Your task to perform on an android device: toggle notification dots Image 0: 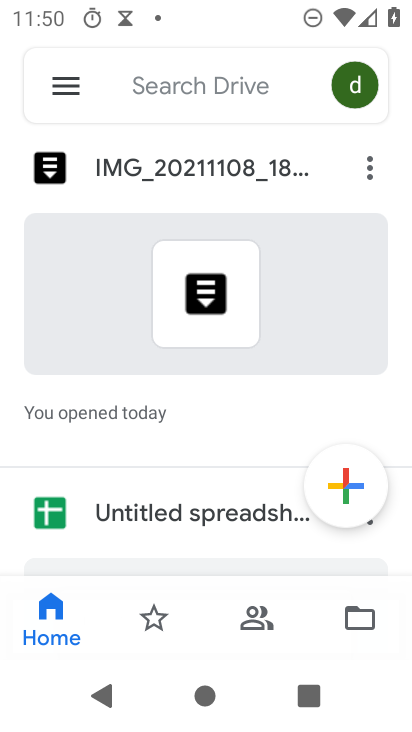
Step 0: press home button
Your task to perform on an android device: toggle notification dots Image 1: 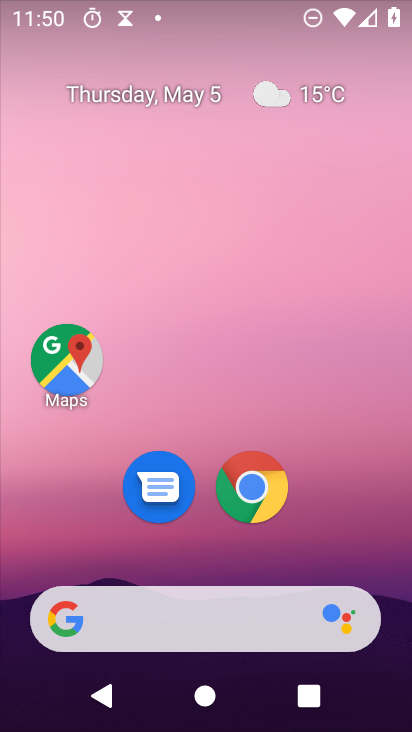
Step 1: drag from (365, 542) to (338, 130)
Your task to perform on an android device: toggle notification dots Image 2: 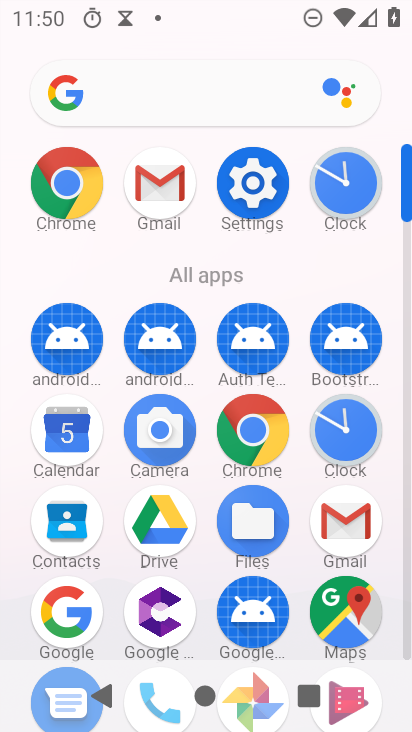
Step 2: click (243, 186)
Your task to perform on an android device: toggle notification dots Image 3: 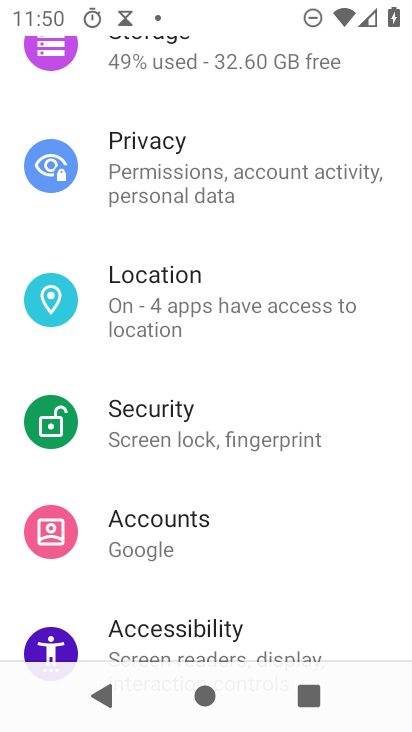
Step 3: drag from (200, 538) to (200, 159)
Your task to perform on an android device: toggle notification dots Image 4: 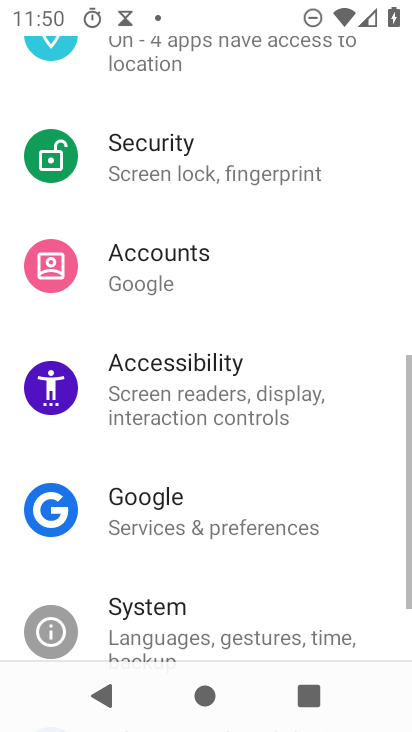
Step 4: drag from (224, 504) to (216, 120)
Your task to perform on an android device: toggle notification dots Image 5: 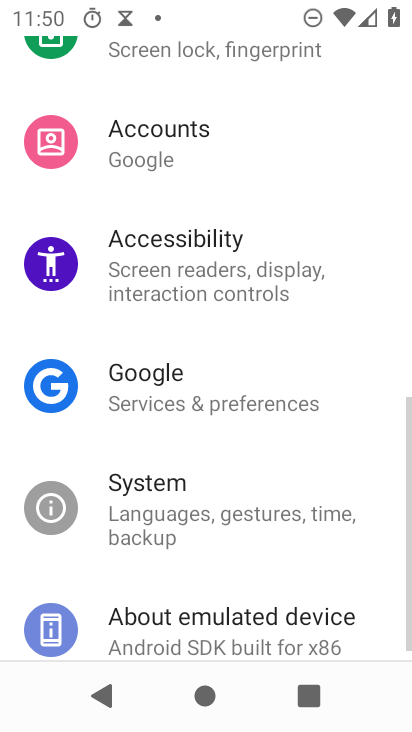
Step 5: drag from (204, 577) to (183, 251)
Your task to perform on an android device: toggle notification dots Image 6: 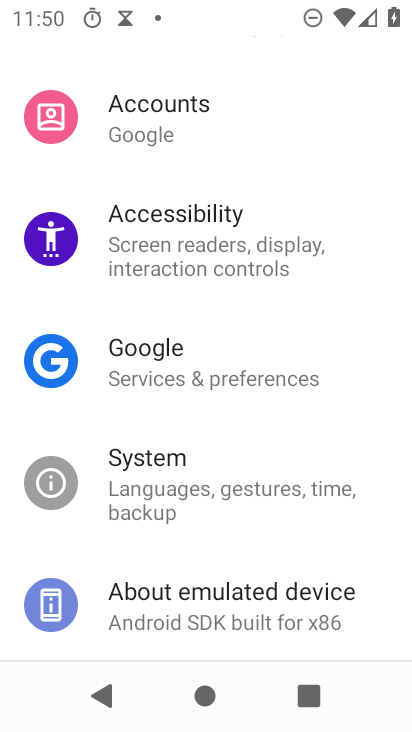
Step 6: drag from (169, 540) to (220, 126)
Your task to perform on an android device: toggle notification dots Image 7: 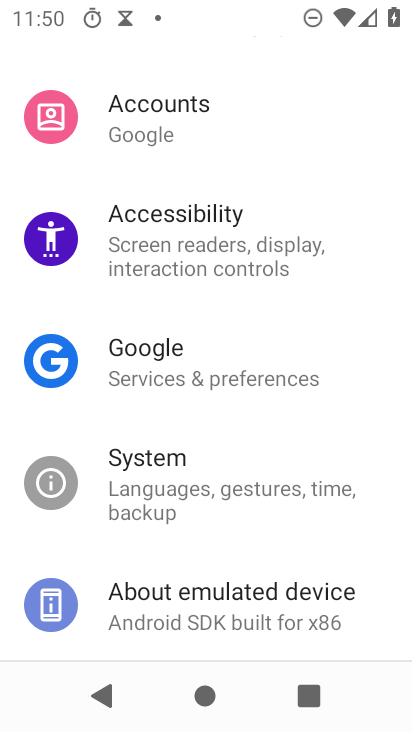
Step 7: drag from (214, 261) to (226, 558)
Your task to perform on an android device: toggle notification dots Image 8: 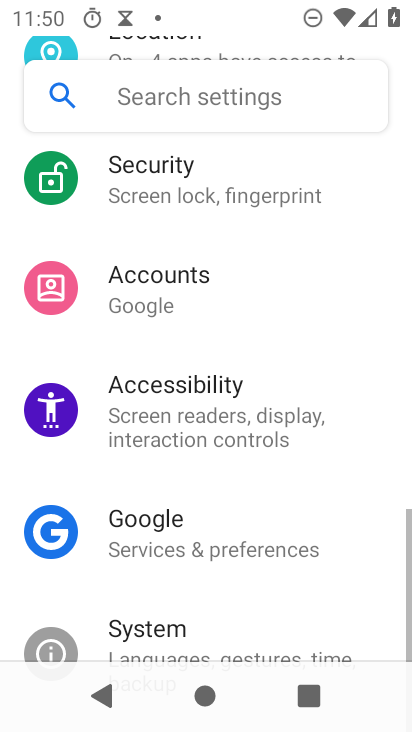
Step 8: click (187, 478)
Your task to perform on an android device: toggle notification dots Image 9: 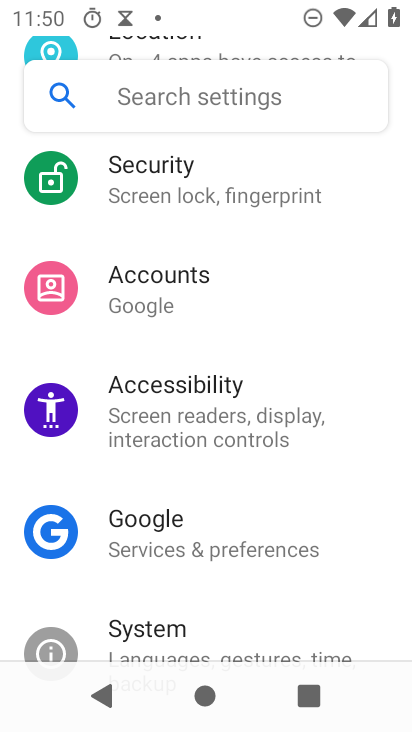
Step 9: drag from (173, 308) to (212, 585)
Your task to perform on an android device: toggle notification dots Image 10: 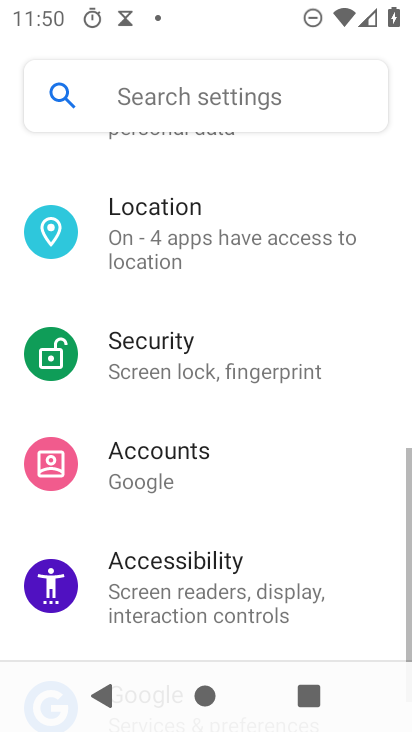
Step 10: drag from (118, 306) to (174, 543)
Your task to perform on an android device: toggle notification dots Image 11: 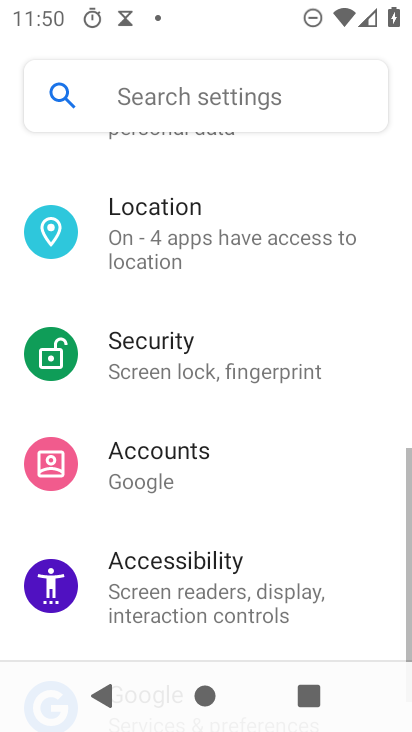
Step 11: drag from (170, 281) to (309, 625)
Your task to perform on an android device: toggle notification dots Image 12: 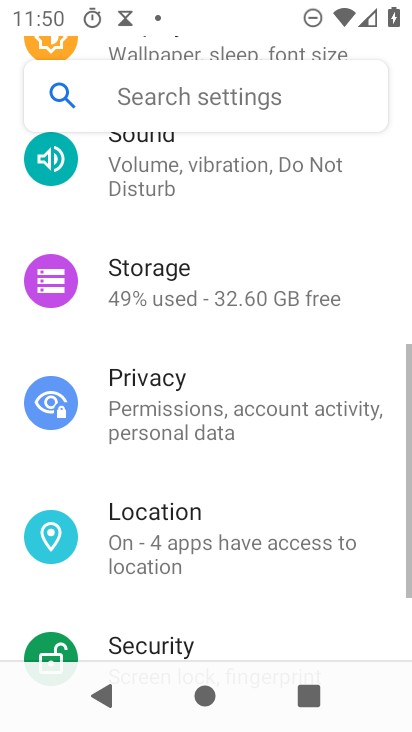
Step 12: drag from (241, 330) to (239, 628)
Your task to perform on an android device: toggle notification dots Image 13: 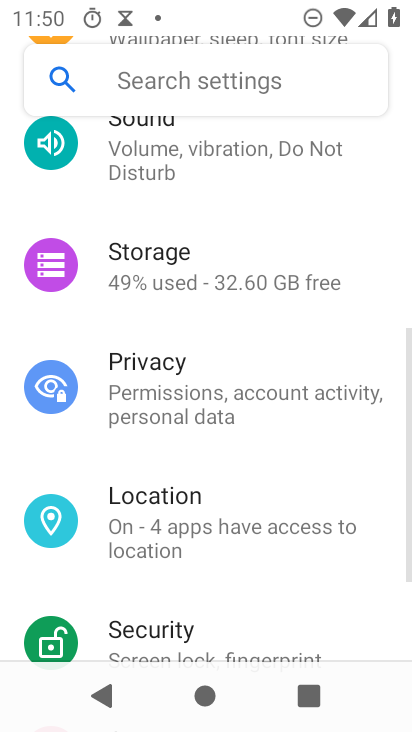
Step 13: drag from (82, 256) to (98, 639)
Your task to perform on an android device: toggle notification dots Image 14: 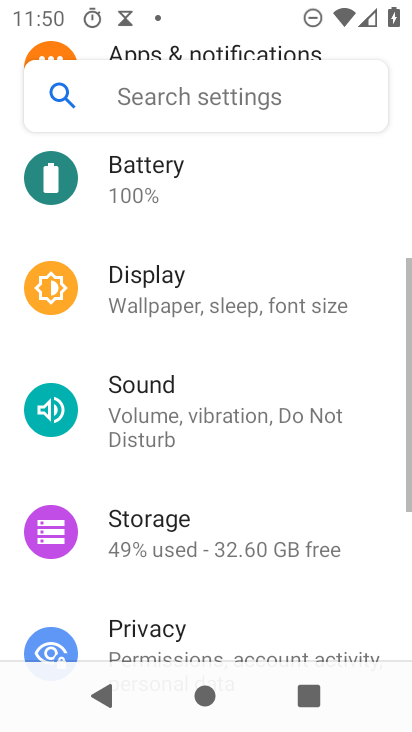
Step 14: drag from (27, 244) to (65, 695)
Your task to perform on an android device: toggle notification dots Image 15: 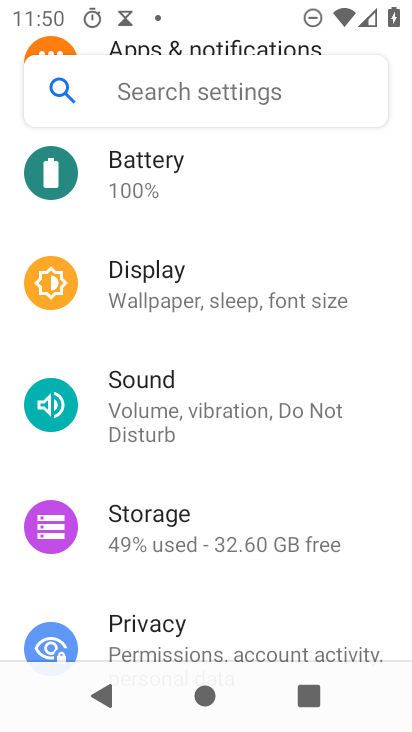
Step 15: drag from (101, 344) to (157, 671)
Your task to perform on an android device: toggle notification dots Image 16: 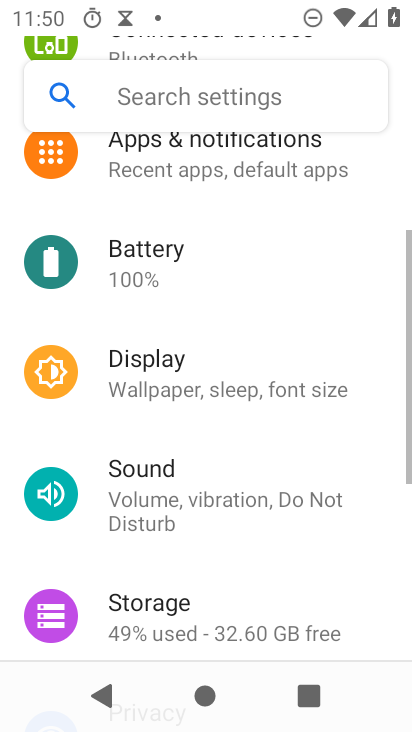
Step 16: drag from (231, 468) to (267, 730)
Your task to perform on an android device: toggle notification dots Image 17: 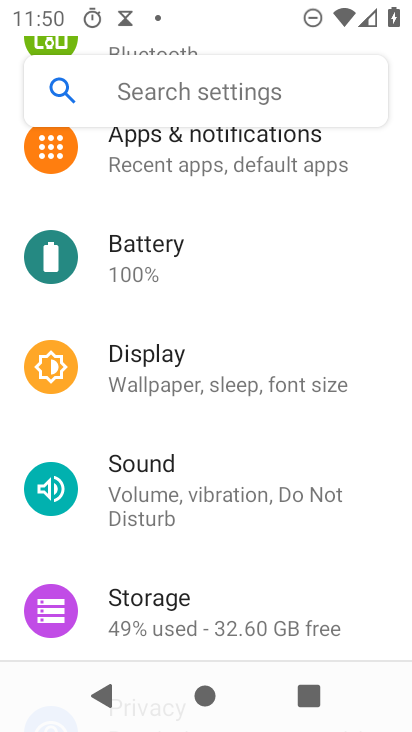
Step 17: click (242, 156)
Your task to perform on an android device: toggle notification dots Image 18: 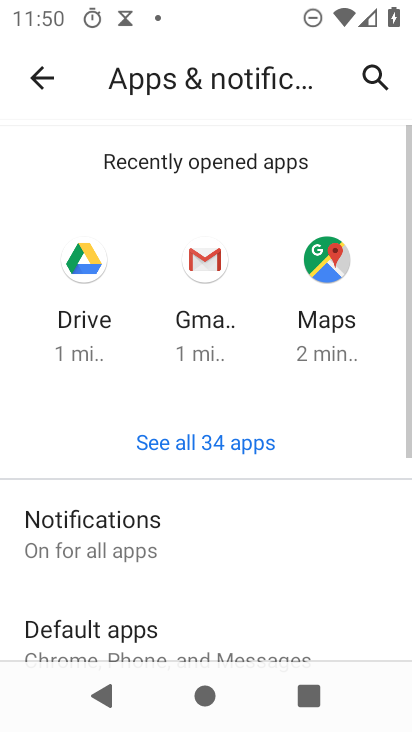
Step 18: drag from (215, 591) to (157, 123)
Your task to perform on an android device: toggle notification dots Image 19: 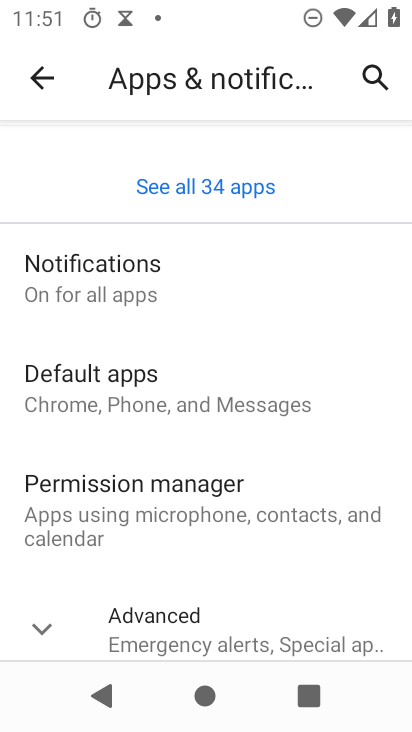
Step 19: click (74, 283)
Your task to perform on an android device: toggle notification dots Image 20: 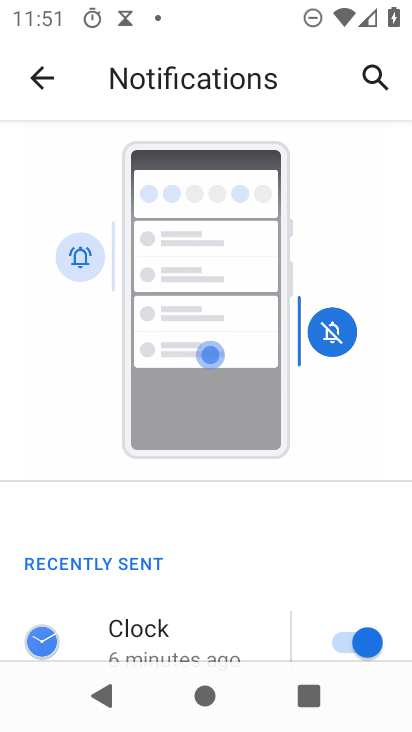
Step 20: drag from (129, 622) to (79, 243)
Your task to perform on an android device: toggle notification dots Image 21: 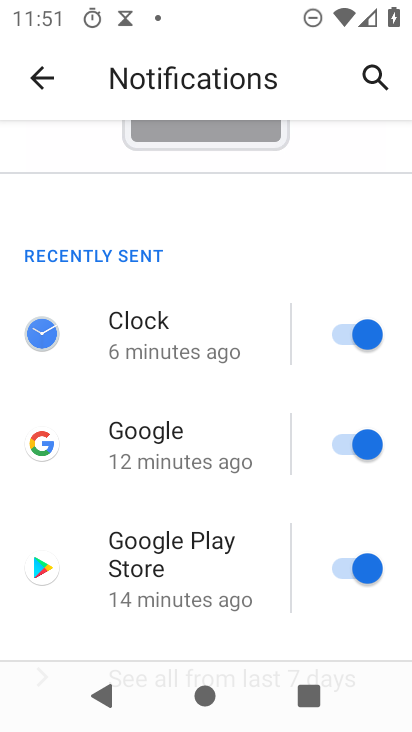
Step 21: drag from (180, 603) to (90, 187)
Your task to perform on an android device: toggle notification dots Image 22: 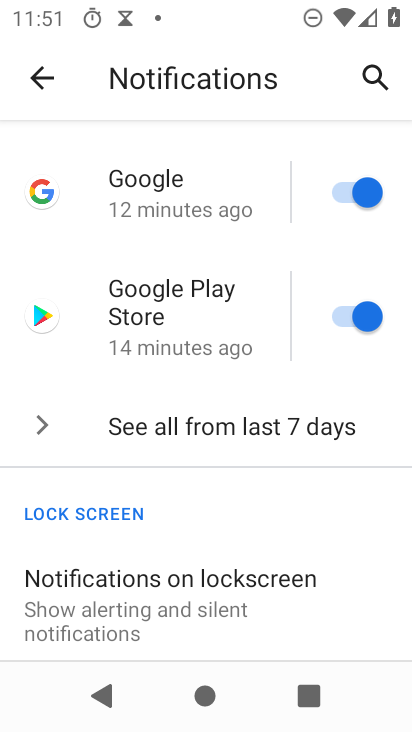
Step 22: drag from (176, 603) to (90, 139)
Your task to perform on an android device: toggle notification dots Image 23: 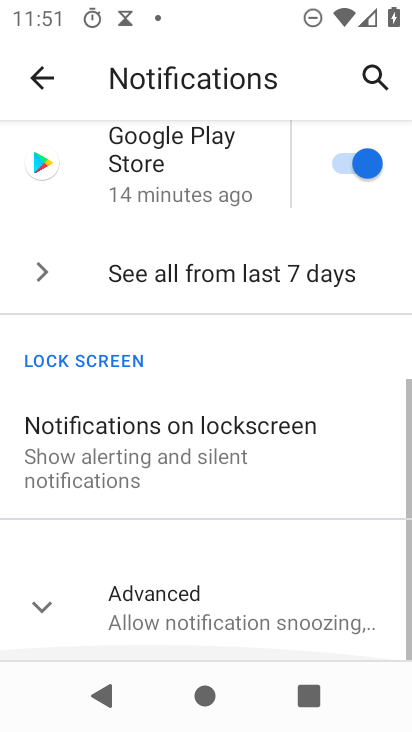
Step 23: drag from (165, 527) to (12, 143)
Your task to perform on an android device: toggle notification dots Image 24: 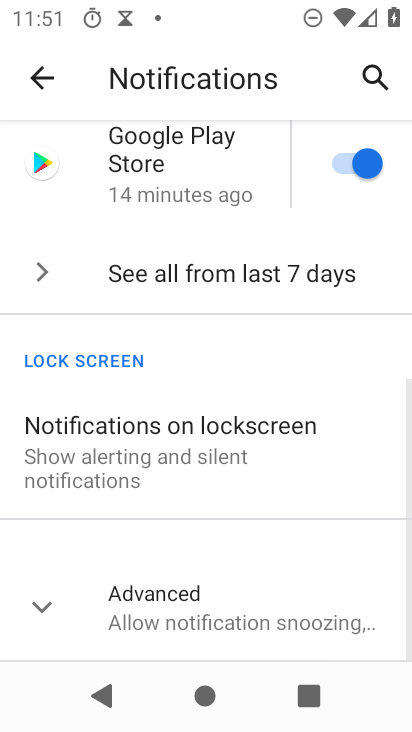
Step 24: click (204, 629)
Your task to perform on an android device: toggle notification dots Image 25: 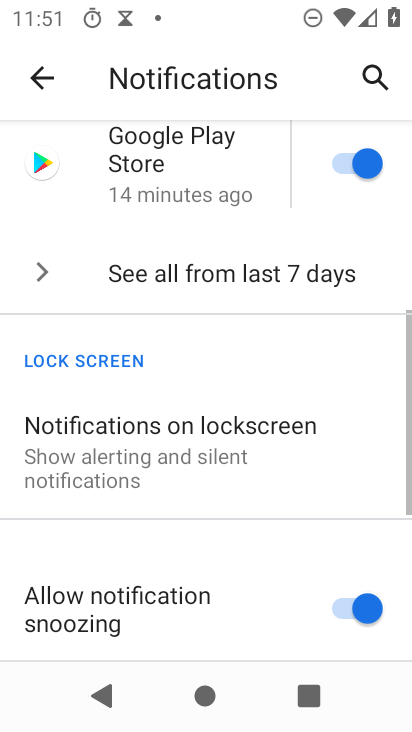
Step 25: drag from (199, 573) to (128, 201)
Your task to perform on an android device: toggle notification dots Image 26: 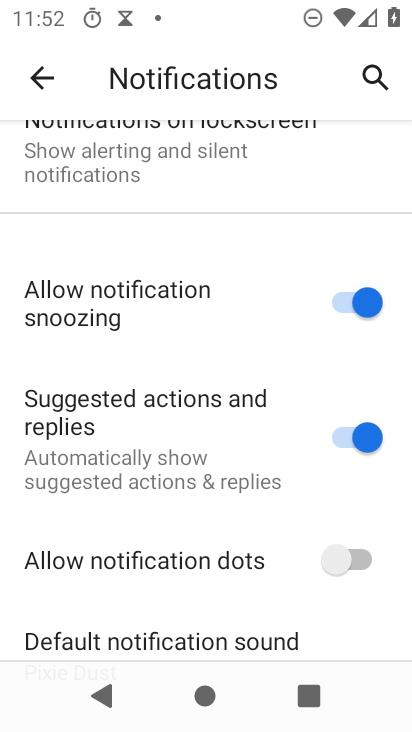
Step 26: click (334, 555)
Your task to perform on an android device: toggle notification dots Image 27: 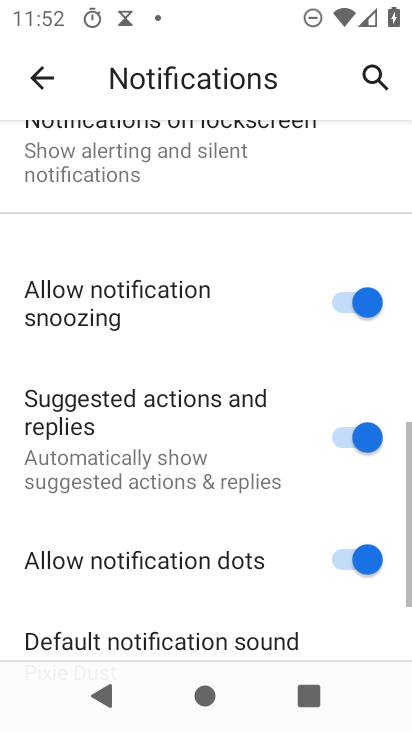
Step 27: task complete